Your task to perform on an android device: turn on wifi Image 0: 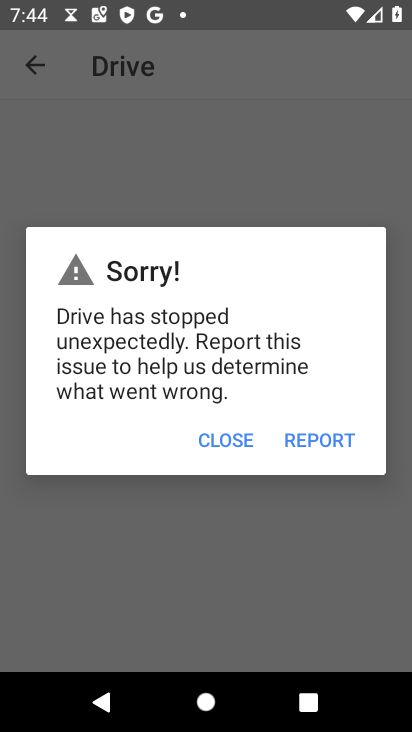
Step 0: press home button
Your task to perform on an android device: turn on wifi Image 1: 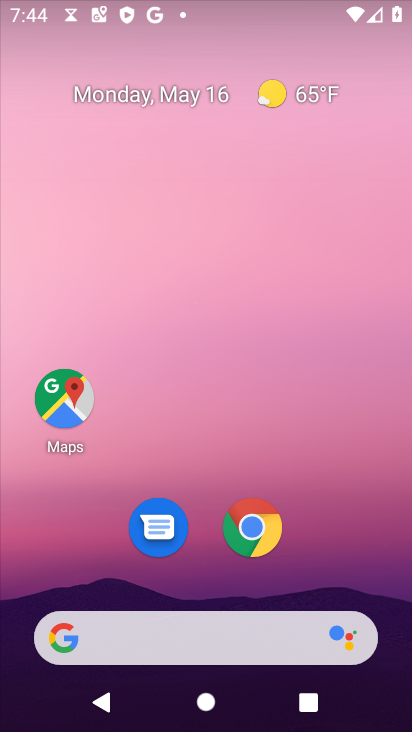
Step 1: drag from (214, 533) to (287, 144)
Your task to perform on an android device: turn on wifi Image 2: 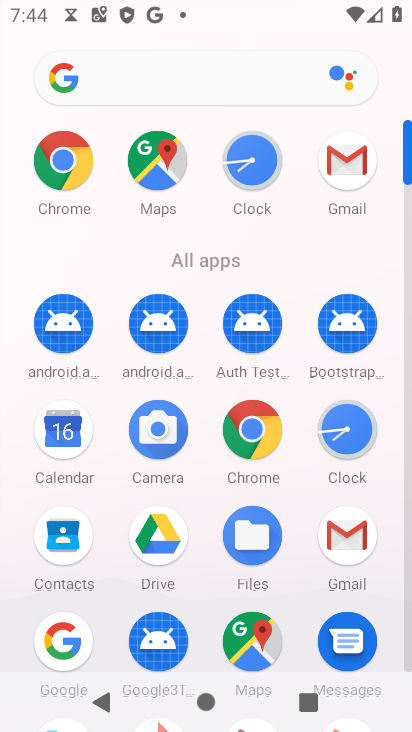
Step 2: drag from (206, 605) to (278, 298)
Your task to perform on an android device: turn on wifi Image 3: 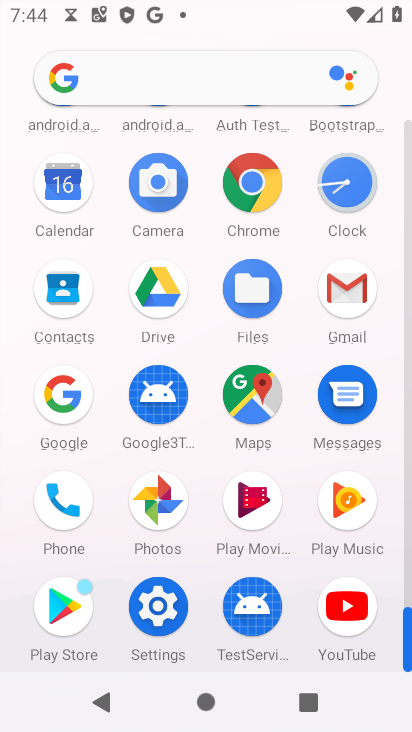
Step 3: click (150, 607)
Your task to perform on an android device: turn on wifi Image 4: 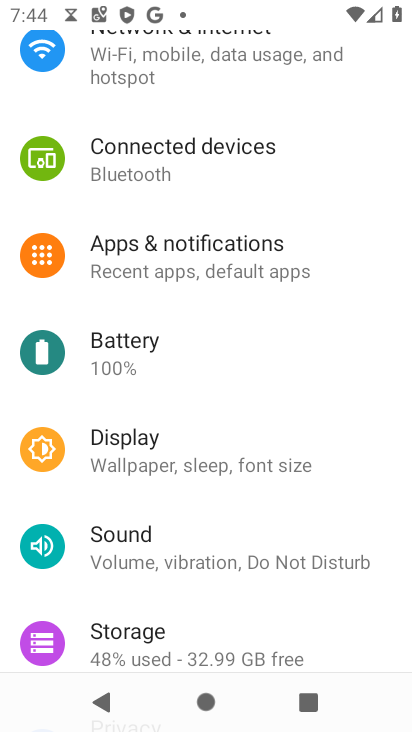
Step 4: drag from (126, 162) to (152, 433)
Your task to perform on an android device: turn on wifi Image 5: 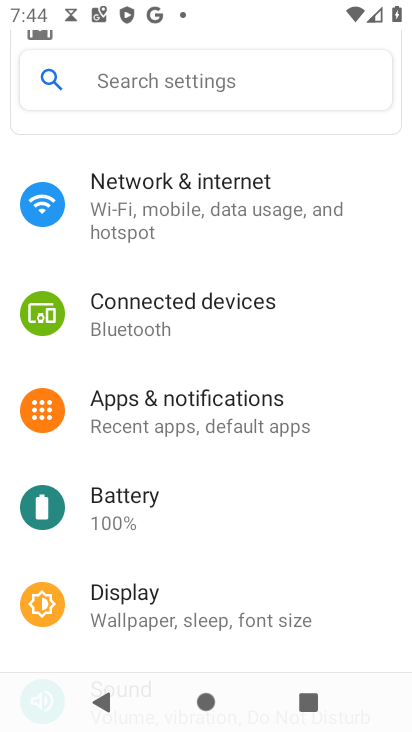
Step 5: click (137, 222)
Your task to perform on an android device: turn on wifi Image 6: 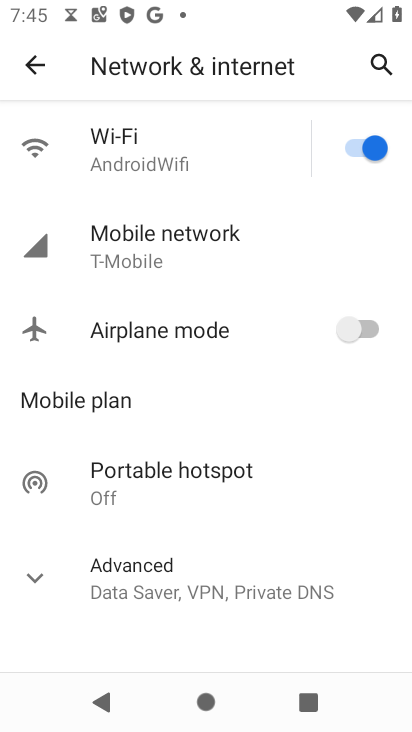
Step 6: task complete